Your task to perform on an android device: turn off priority inbox in the gmail app Image 0: 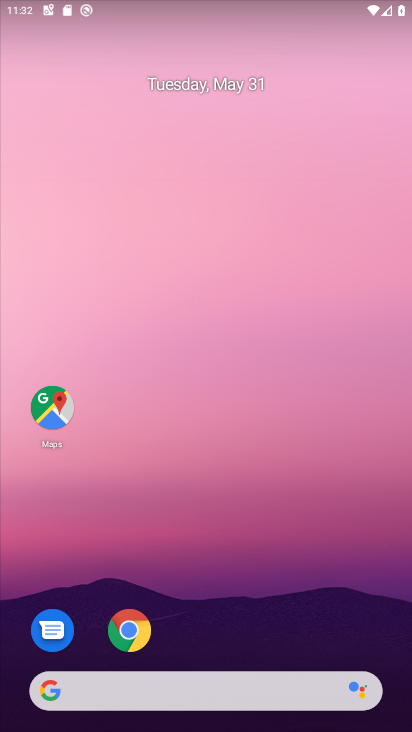
Step 0: drag from (257, 573) to (261, 127)
Your task to perform on an android device: turn off priority inbox in the gmail app Image 1: 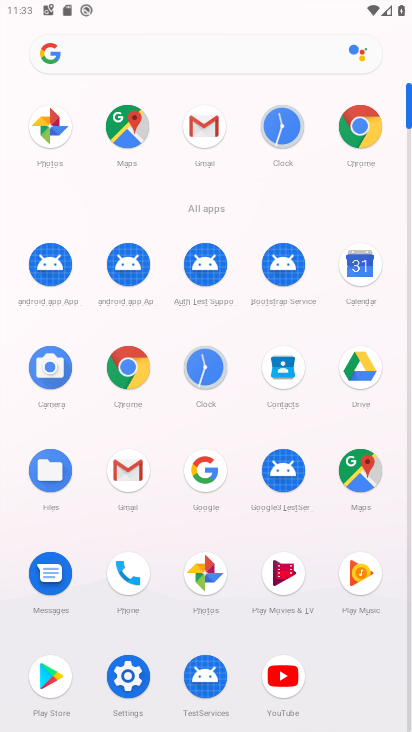
Step 1: click (130, 461)
Your task to perform on an android device: turn off priority inbox in the gmail app Image 2: 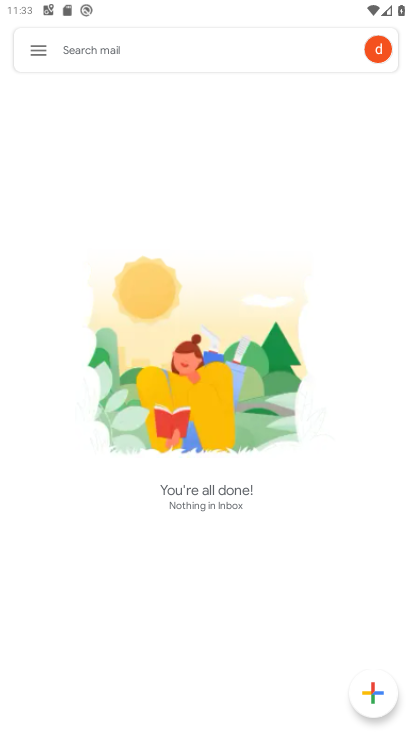
Step 2: click (32, 36)
Your task to perform on an android device: turn off priority inbox in the gmail app Image 3: 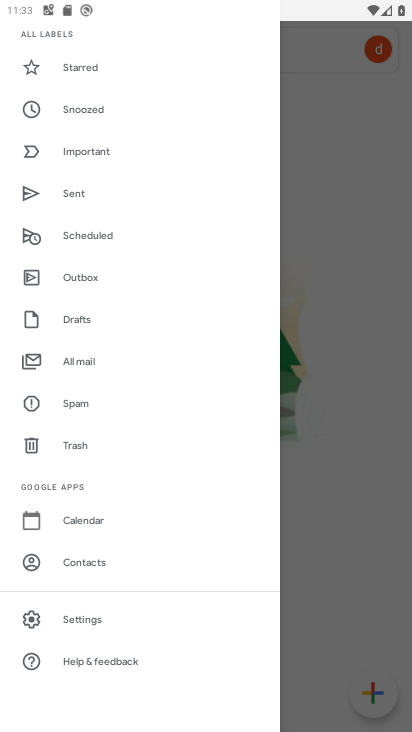
Step 3: click (108, 609)
Your task to perform on an android device: turn off priority inbox in the gmail app Image 4: 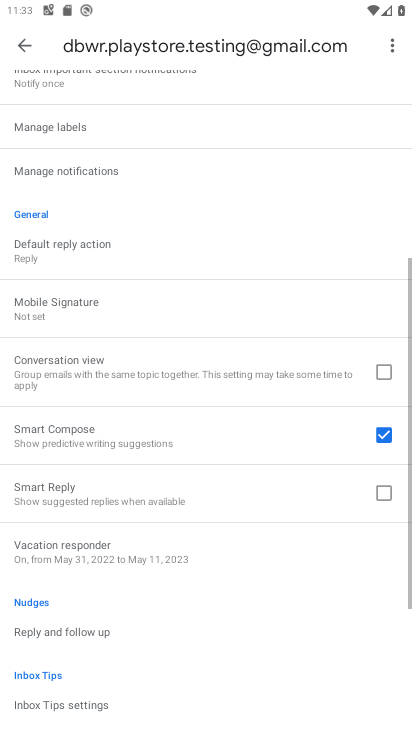
Step 4: drag from (185, 547) to (217, 161)
Your task to perform on an android device: turn off priority inbox in the gmail app Image 5: 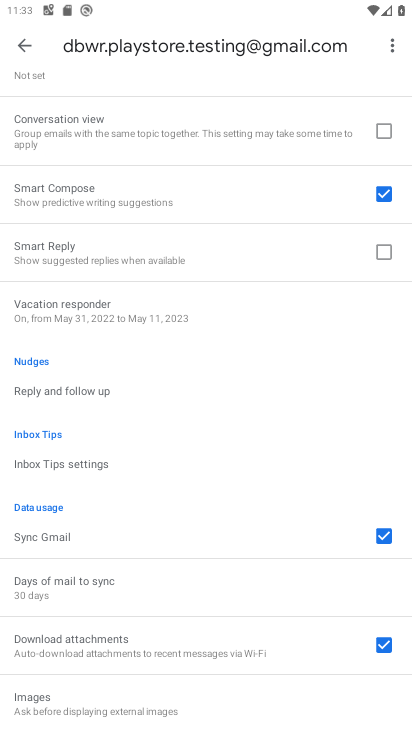
Step 5: drag from (113, 157) to (94, 585)
Your task to perform on an android device: turn off priority inbox in the gmail app Image 6: 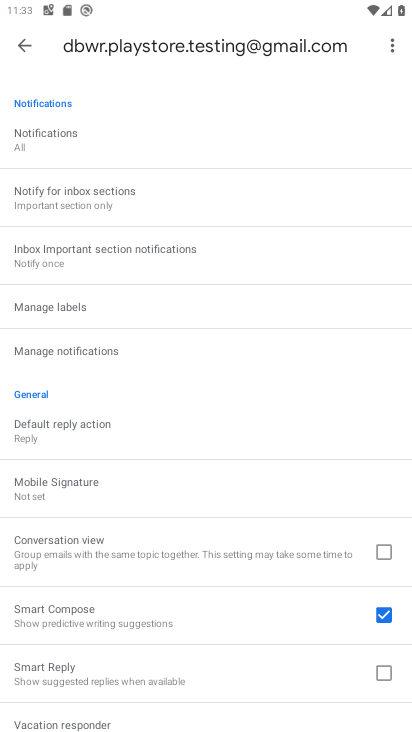
Step 6: drag from (120, 187) to (145, 579)
Your task to perform on an android device: turn off priority inbox in the gmail app Image 7: 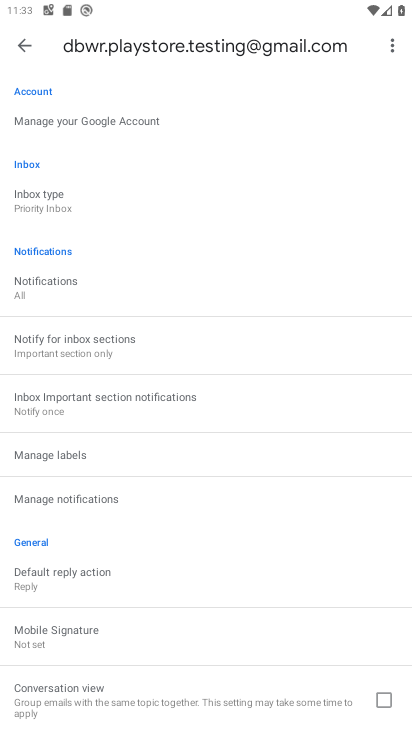
Step 7: click (67, 198)
Your task to perform on an android device: turn off priority inbox in the gmail app Image 8: 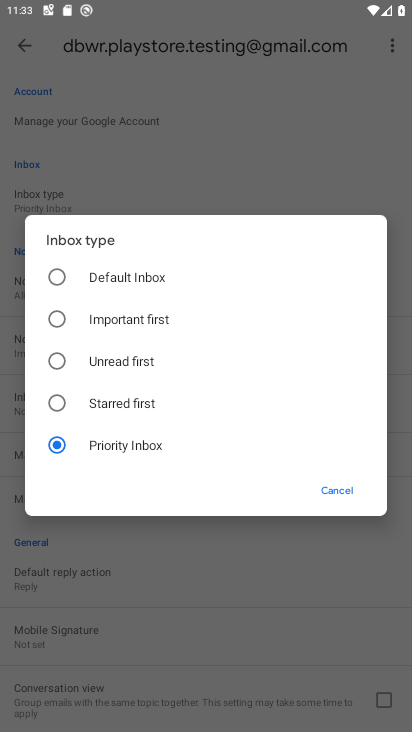
Step 8: click (108, 269)
Your task to perform on an android device: turn off priority inbox in the gmail app Image 9: 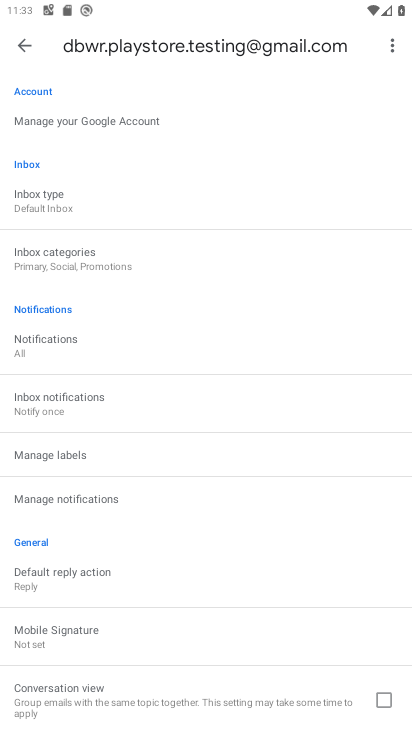
Step 9: task complete